Your task to perform on an android device: turn off location Image 0: 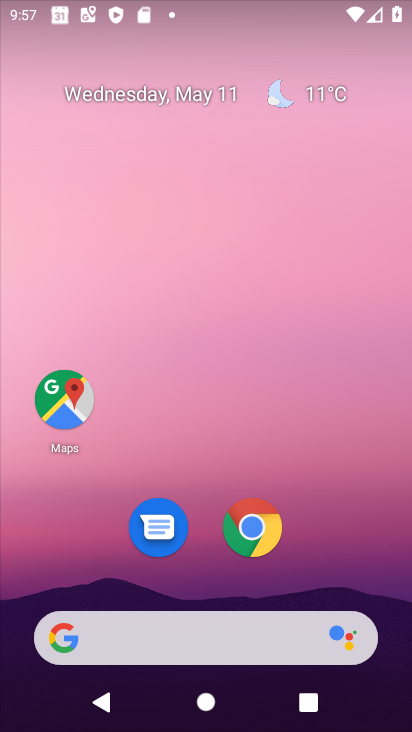
Step 0: drag from (369, 487) to (184, 4)
Your task to perform on an android device: turn off location Image 1: 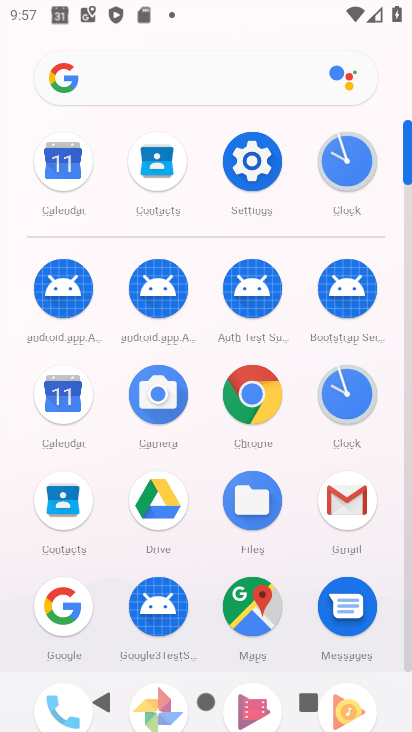
Step 1: click (260, 169)
Your task to perform on an android device: turn off location Image 2: 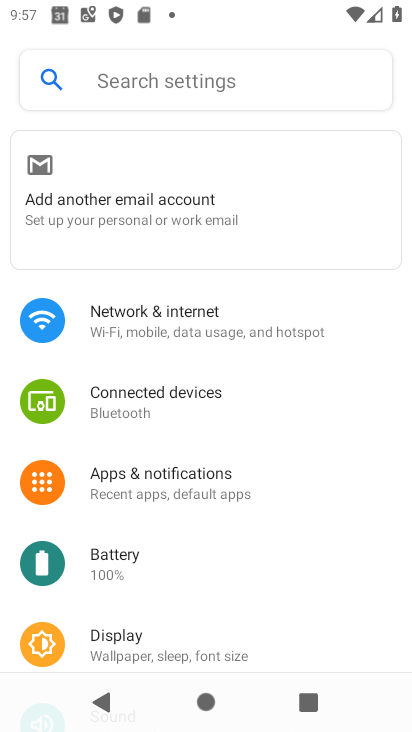
Step 2: drag from (266, 577) to (262, 133)
Your task to perform on an android device: turn off location Image 3: 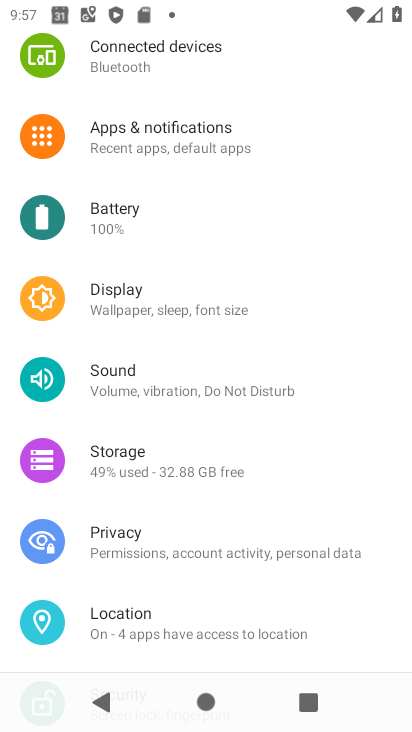
Step 3: click (201, 629)
Your task to perform on an android device: turn off location Image 4: 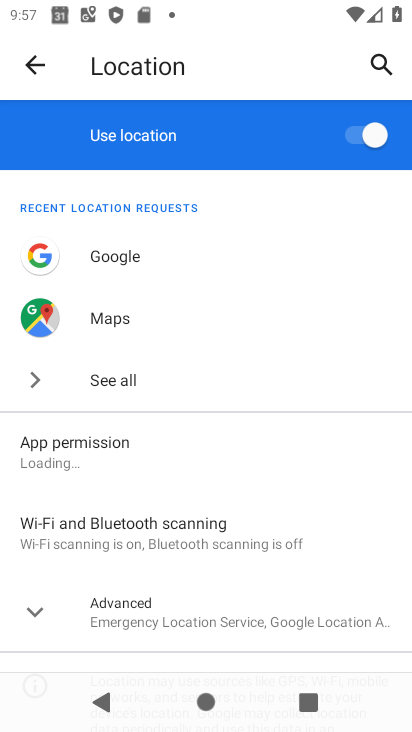
Step 4: click (352, 134)
Your task to perform on an android device: turn off location Image 5: 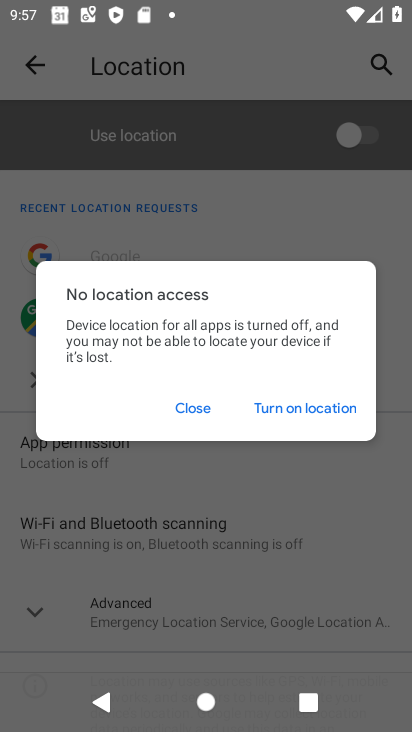
Step 5: task complete